Your task to perform on an android device: remove spam from my inbox in the gmail app Image 0: 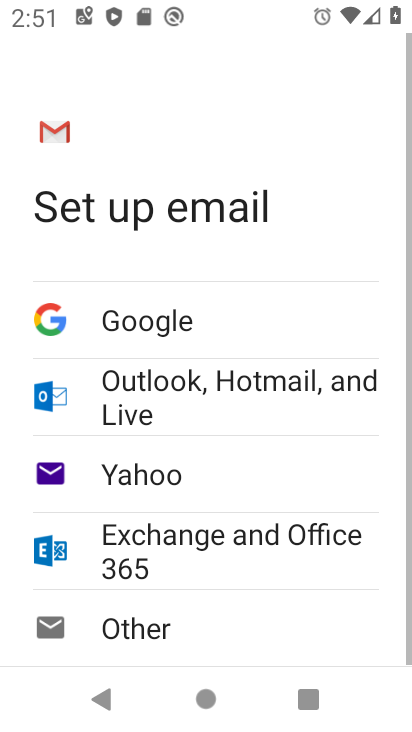
Step 0: press home button
Your task to perform on an android device: remove spam from my inbox in the gmail app Image 1: 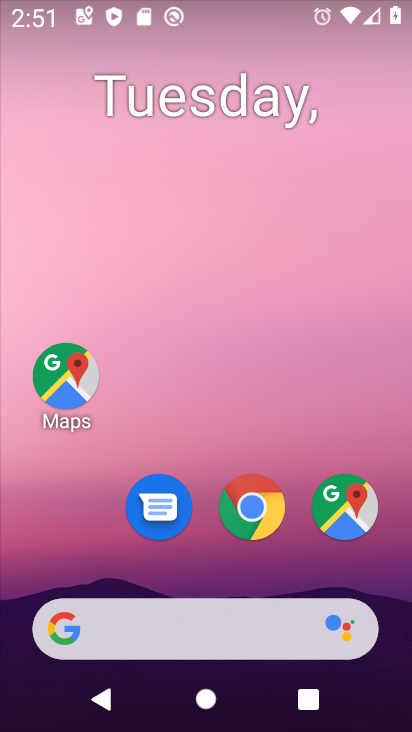
Step 1: drag from (268, 532) to (255, 192)
Your task to perform on an android device: remove spam from my inbox in the gmail app Image 2: 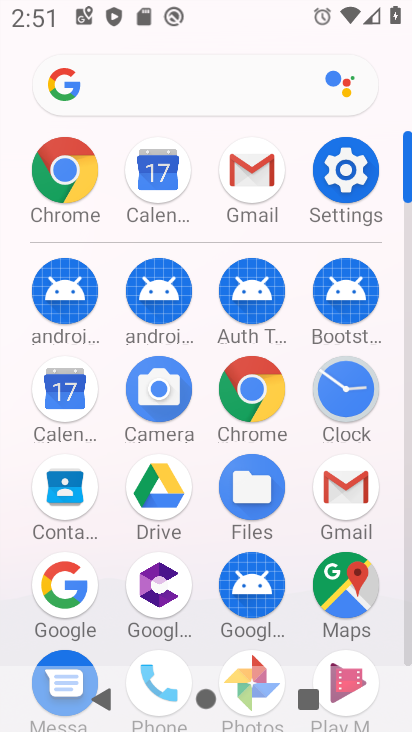
Step 2: click (348, 467)
Your task to perform on an android device: remove spam from my inbox in the gmail app Image 3: 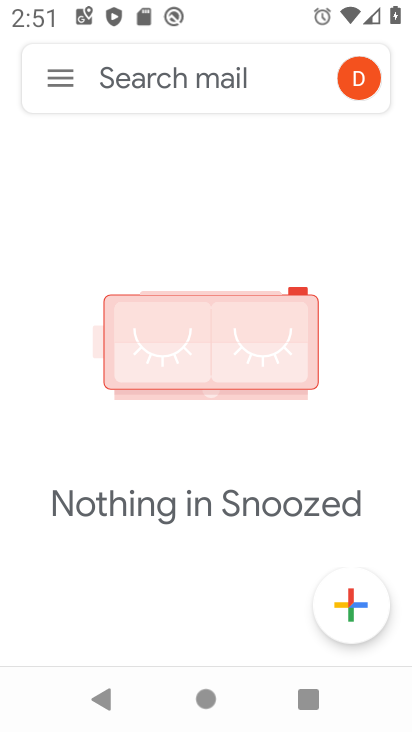
Step 3: click (54, 78)
Your task to perform on an android device: remove spam from my inbox in the gmail app Image 4: 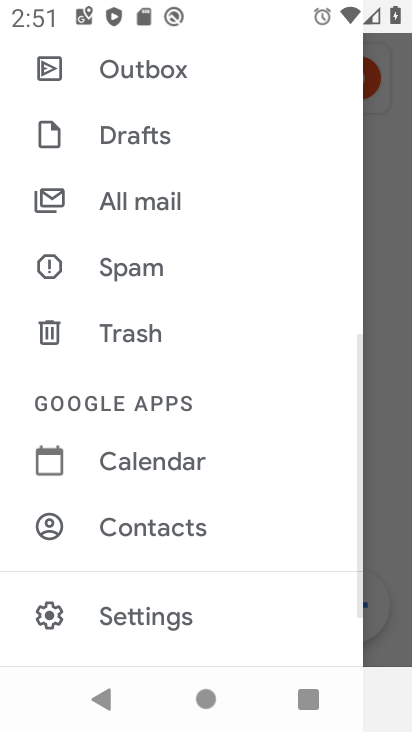
Step 4: click (139, 272)
Your task to perform on an android device: remove spam from my inbox in the gmail app Image 5: 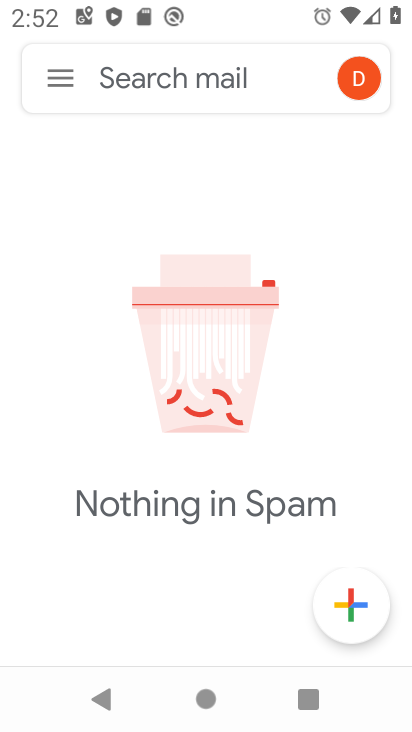
Step 5: task complete